Your task to perform on an android device: turn on priority inbox in the gmail app Image 0: 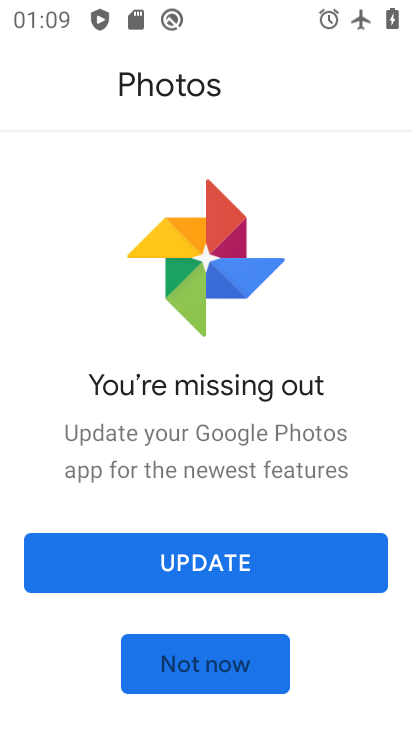
Step 0: press home button
Your task to perform on an android device: turn on priority inbox in the gmail app Image 1: 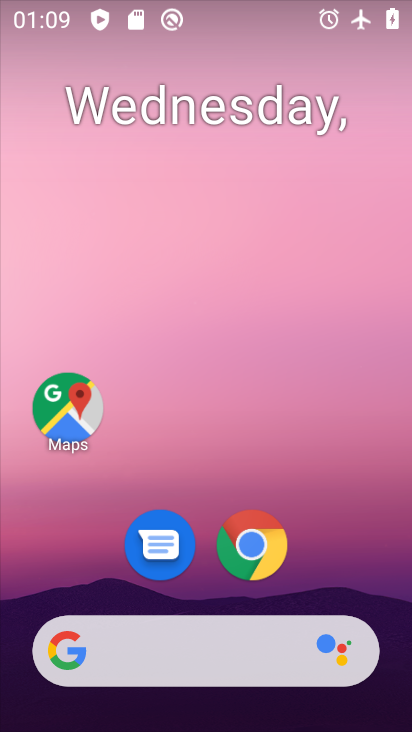
Step 1: drag from (334, 513) to (365, 86)
Your task to perform on an android device: turn on priority inbox in the gmail app Image 2: 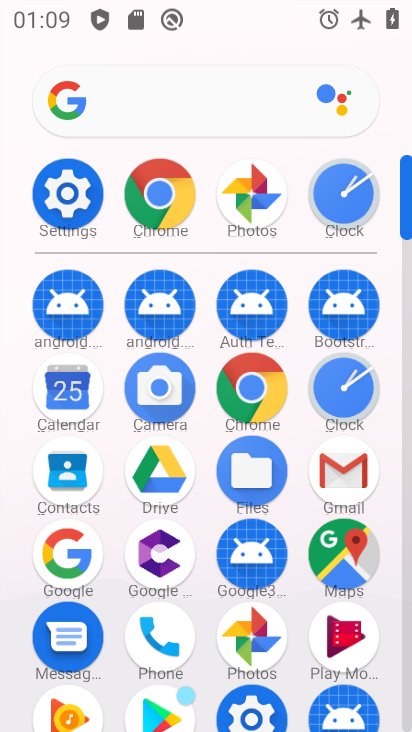
Step 2: click (355, 465)
Your task to perform on an android device: turn on priority inbox in the gmail app Image 3: 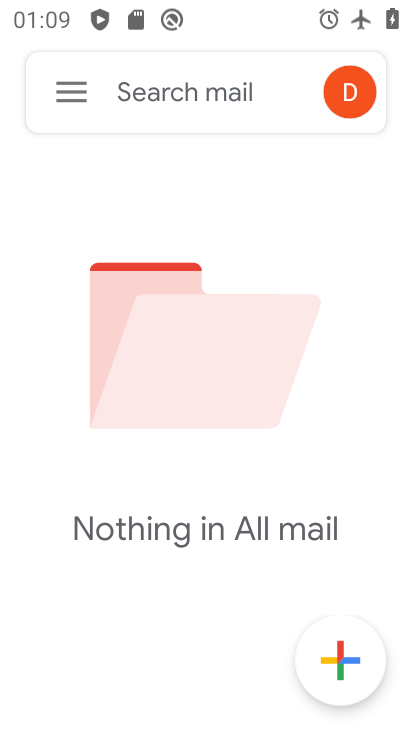
Step 3: click (81, 90)
Your task to perform on an android device: turn on priority inbox in the gmail app Image 4: 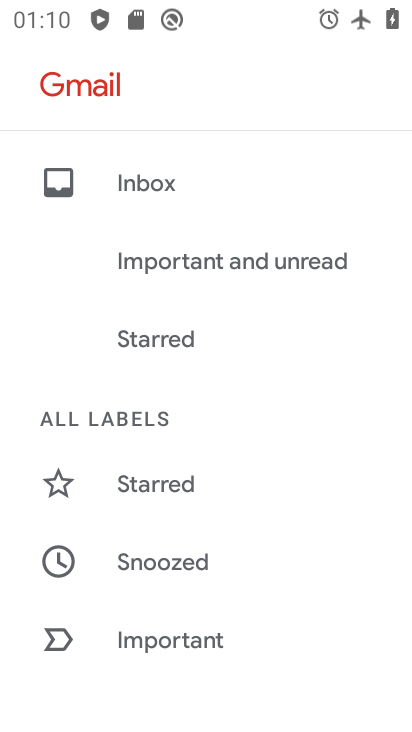
Step 4: drag from (121, 560) to (210, 42)
Your task to perform on an android device: turn on priority inbox in the gmail app Image 5: 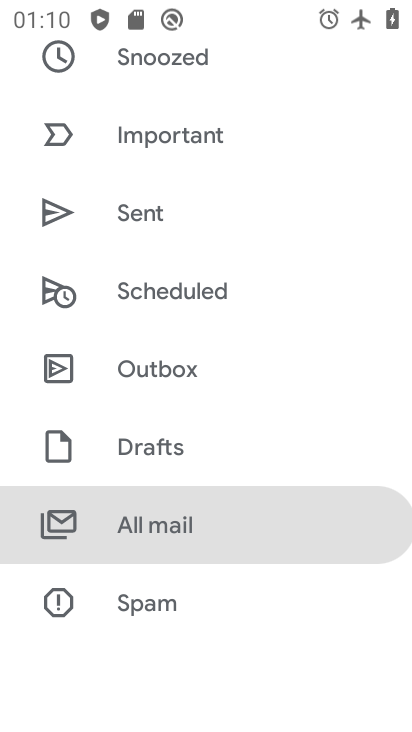
Step 5: drag from (154, 540) to (266, 95)
Your task to perform on an android device: turn on priority inbox in the gmail app Image 6: 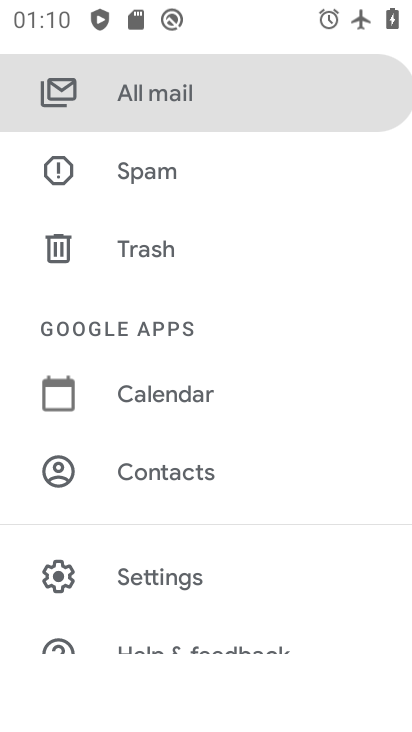
Step 6: click (175, 568)
Your task to perform on an android device: turn on priority inbox in the gmail app Image 7: 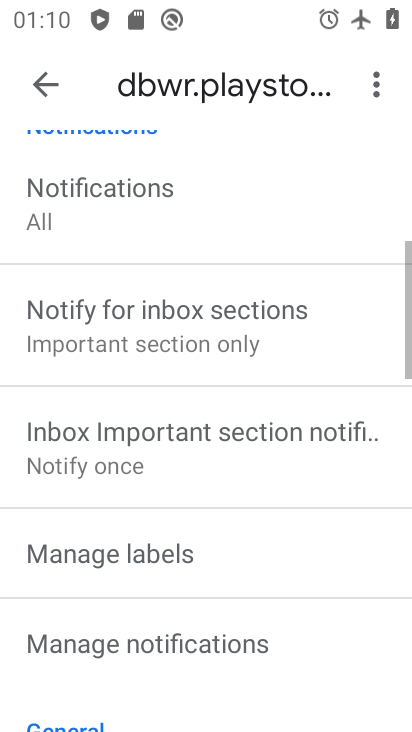
Step 7: drag from (215, 215) to (189, 666)
Your task to perform on an android device: turn on priority inbox in the gmail app Image 8: 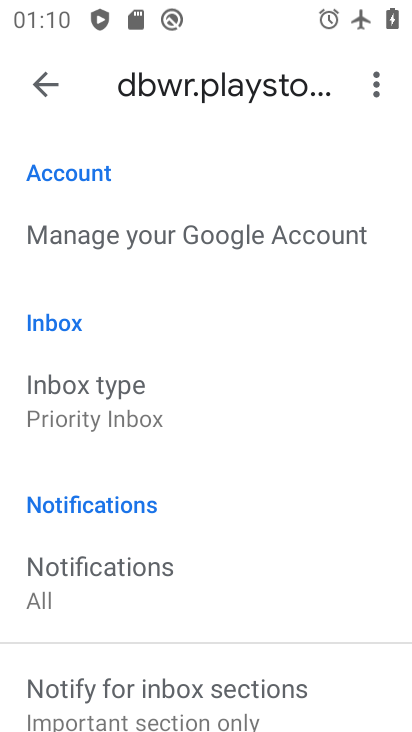
Step 8: click (137, 409)
Your task to perform on an android device: turn on priority inbox in the gmail app Image 9: 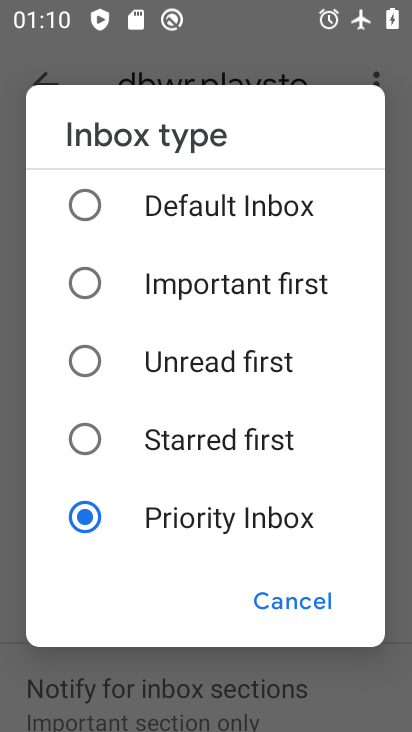
Step 9: task complete